Your task to perform on an android device: set the timer Image 0: 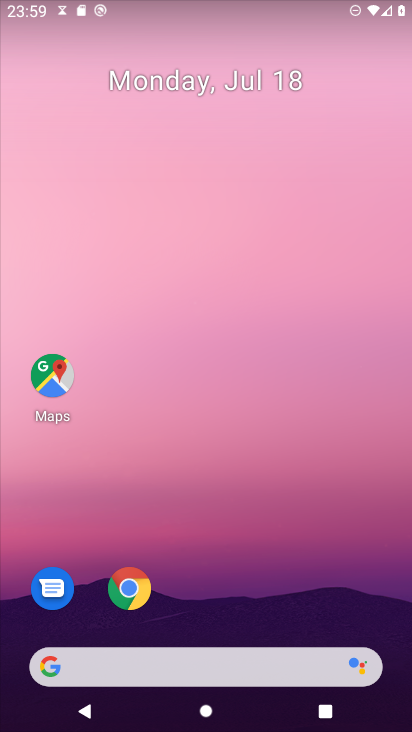
Step 0: press home button
Your task to perform on an android device: set the timer Image 1: 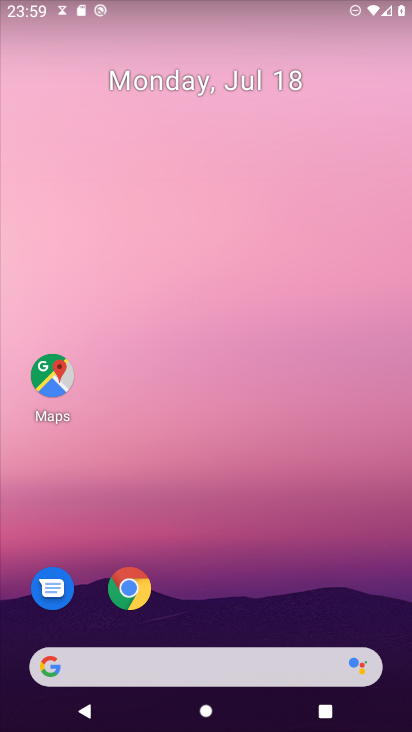
Step 1: drag from (253, 594) to (253, 110)
Your task to perform on an android device: set the timer Image 2: 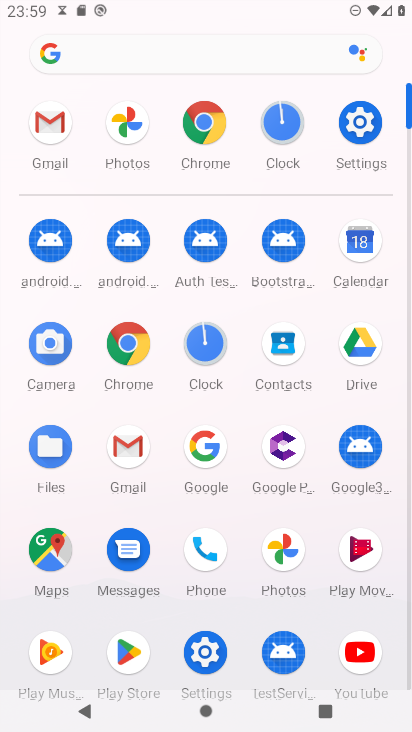
Step 2: click (207, 351)
Your task to perform on an android device: set the timer Image 3: 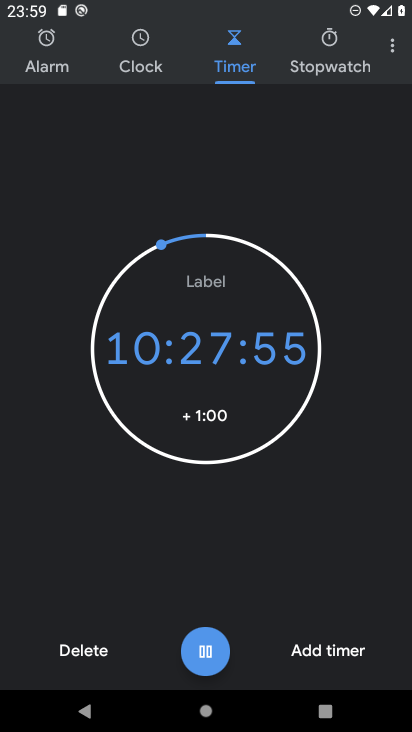
Step 3: task complete